Your task to perform on an android device: Open maps Image 0: 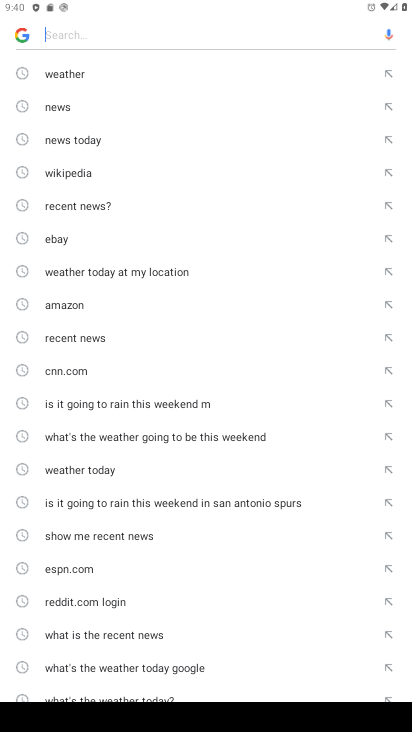
Step 0: press home button
Your task to perform on an android device: Open maps Image 1: 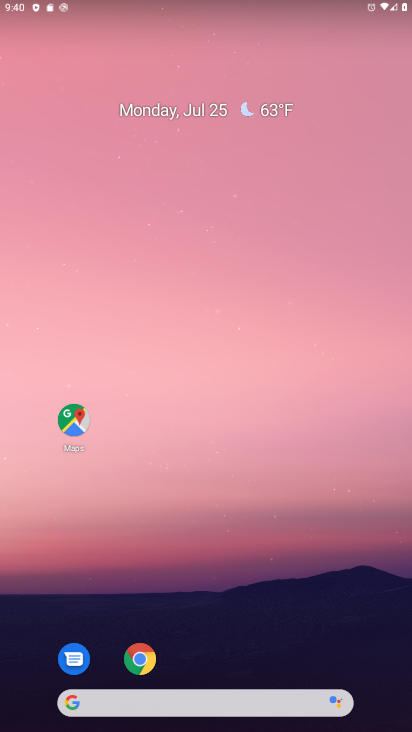
Step 1: drag from (206, 709) to (174, 376)
Your task to perform on an android device: Open maps Image 2: 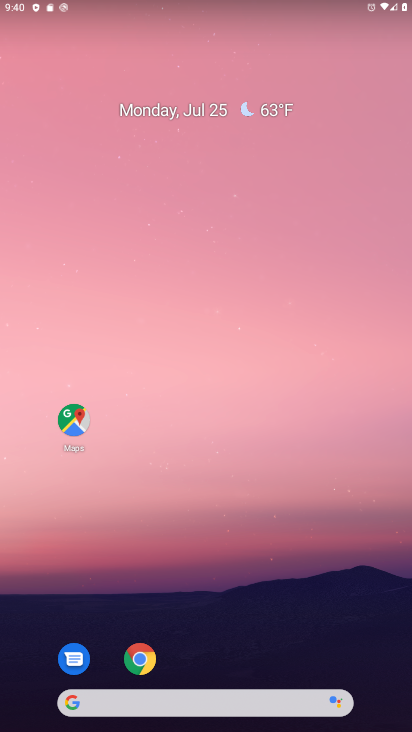
Step 2: drag from (230, 728) to (223, 110)
Your task to perform on an android device: Open maps Image 3: 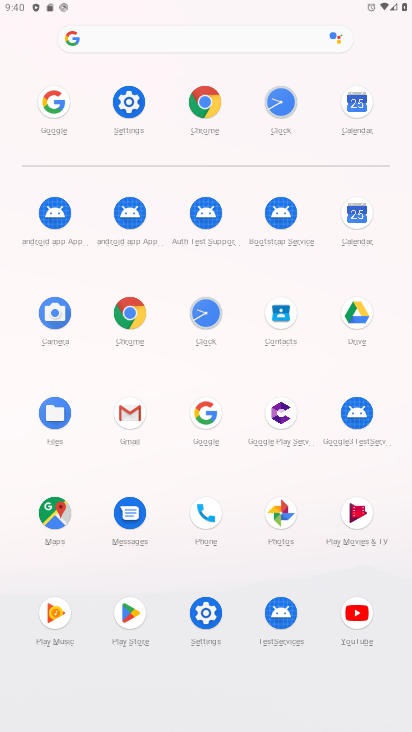
Step 3: click (55, 506)
Your task to perform on an android device: Open maps Image 4: 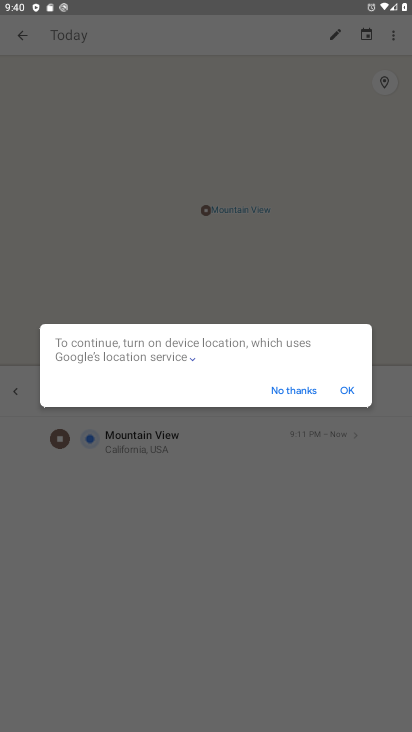
Step 4: task complete